Your task to perform on an android device: Open Yahoo.com Image 0: 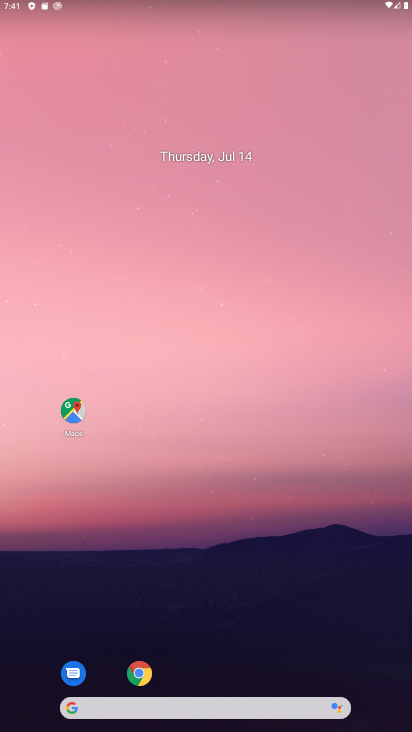
Step 0: click (229, 207)
Your task to perform on an android device: Open Yahoo.com Image 1: 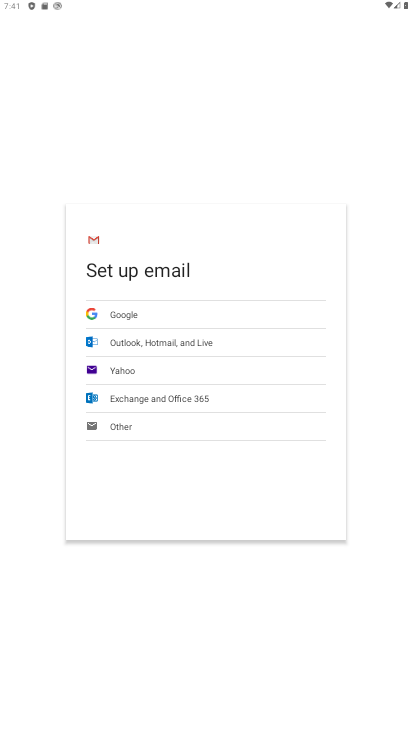
Step 1: press home button
Your task to perform on an android device: Open Yahoo.com Image 2: 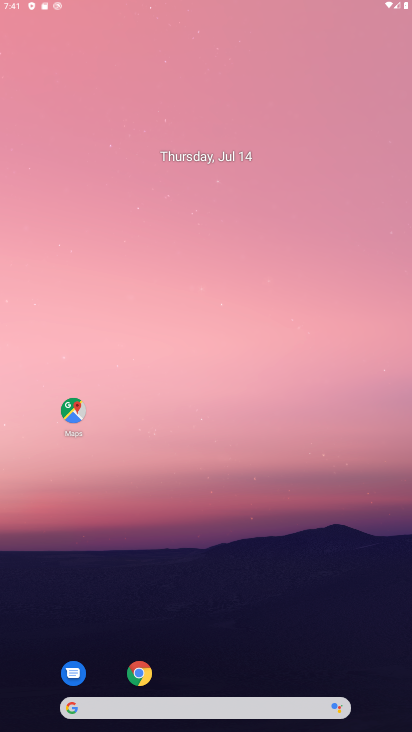
Step 2: drag from (232, 606) to (274, 161)
Your task to perform on an android device: Open Yahoo.com Image 3: 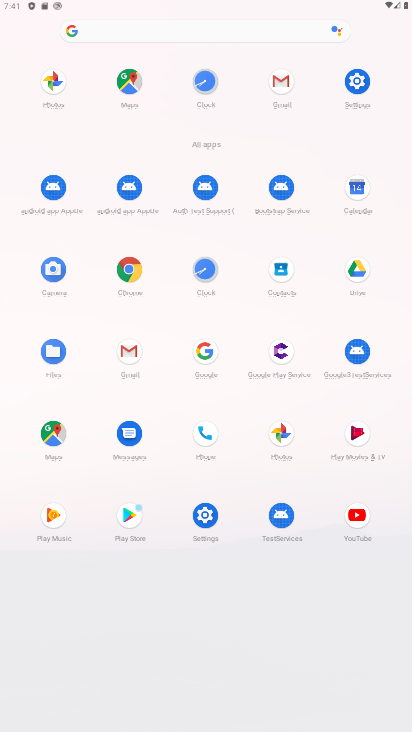
Step 3: click (153, 254)
Your task to perform on an android device: Open Yahoo.com Image 4: 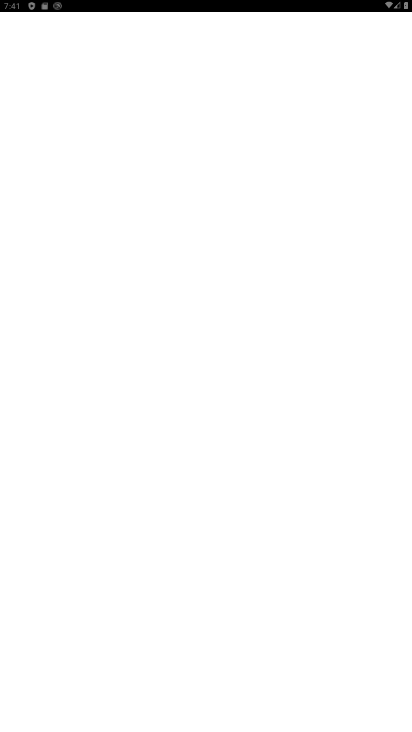
Step 4: click (138, 258)
Your task to perform on an android device: Open Yahoo.com Image 5: 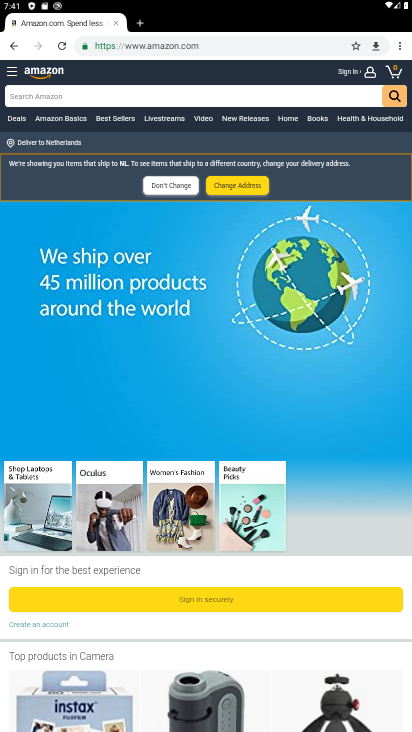
Step 5: click (209, 51)
Your task to perform on an android device: Open Yahoo.com Image 6: 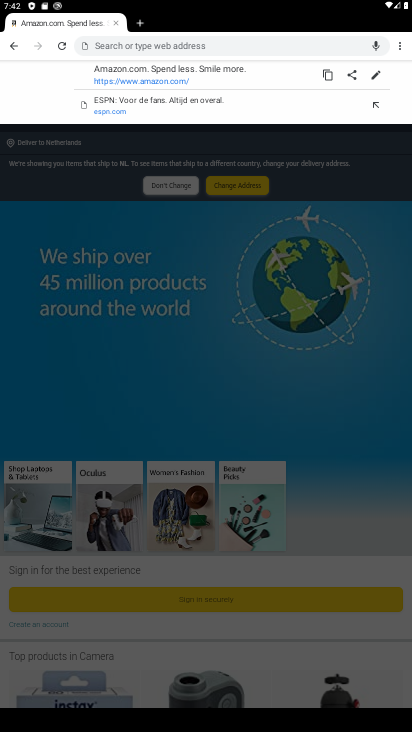
Step 6: type "yahoo.com"
Your task to perform on an android device: Open Yahoo.com Image 7: 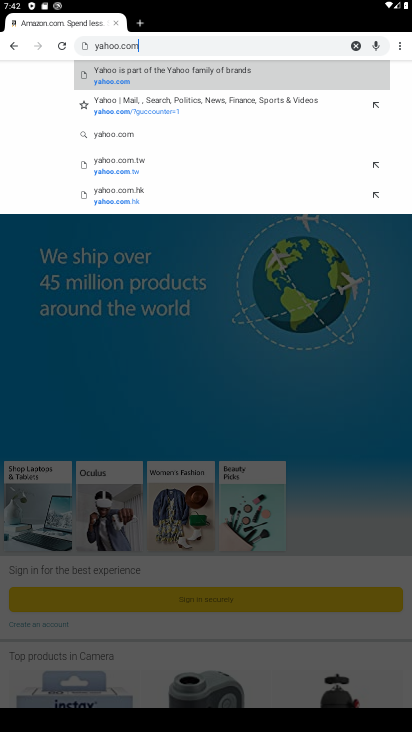
Step 7: click (126, 76)
Your task to perform on an android device: Open Yahoo.com Image 8: 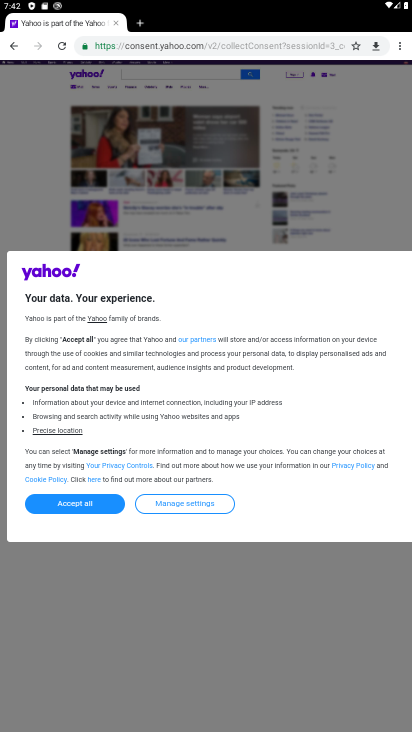
Step 8: task complete